Your task to perform on an android device: turn on priority inbox in the gmail app Image 0: 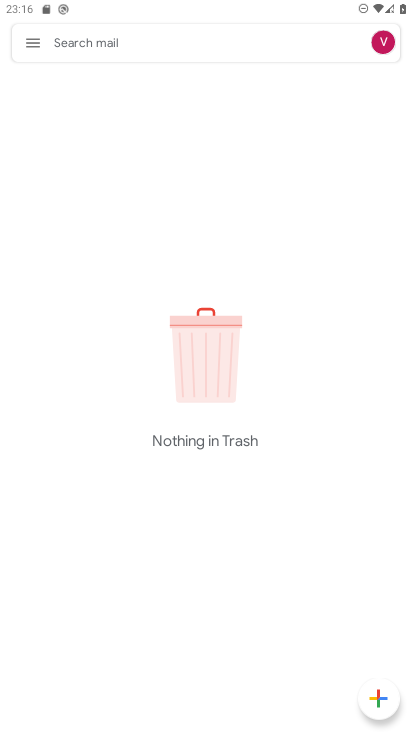
Step 0: press home button
Your task to perform on an android device: turn on priority inbox in the gmail app Image 1: 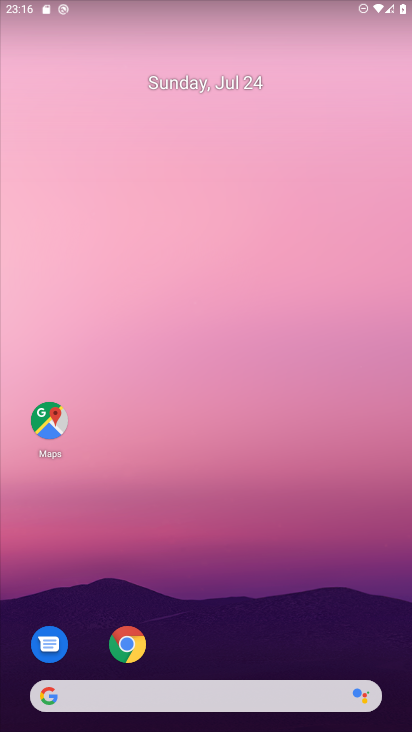
Step 1: drag from (336, 644) to (359, 141)
Your task to perform on an android device: turn on priority inbox in the gmail app Image 2: 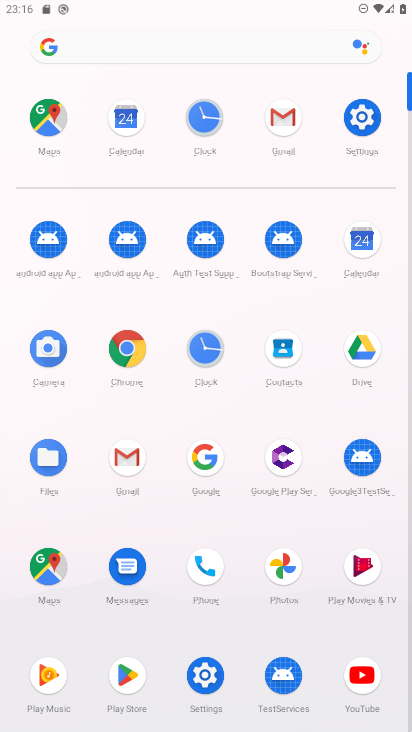
Step 2: click (128, 457)
Your task to perform on an android device: turn on priority inbox in the gmail app Image 3: 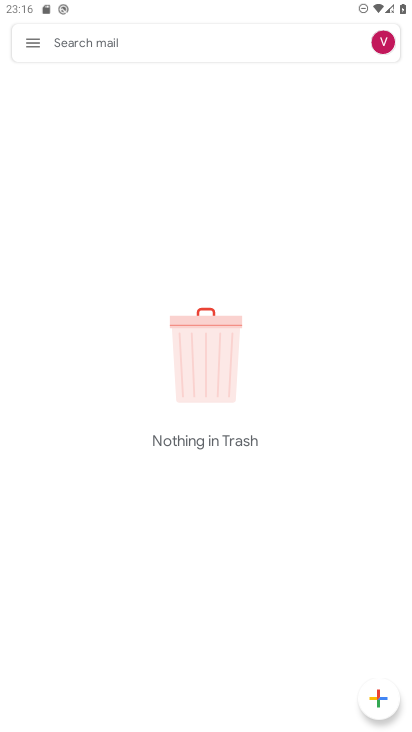
Step 3: click (27, 43)
Your task to perform on an android device: turn on priority inbox in the gmail app Image 4: 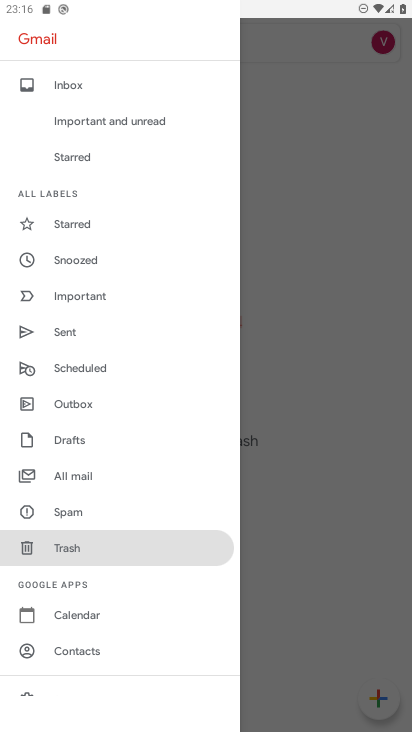
Step 4: drag from (128, 644) to (128, 214)
Your task to perform on an android device: turn on priority inbox in the gmail app Image 5: 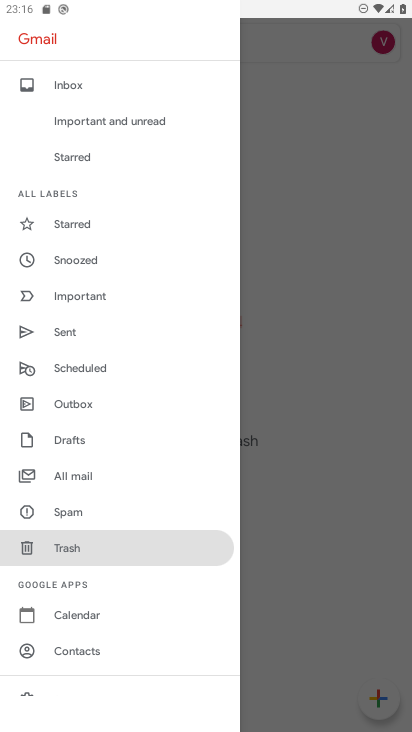
Step 5: drag from (113, 659) to (125, 192)
Your task to perform on an android device: turn on priority inbox in the gmail app Image 6: 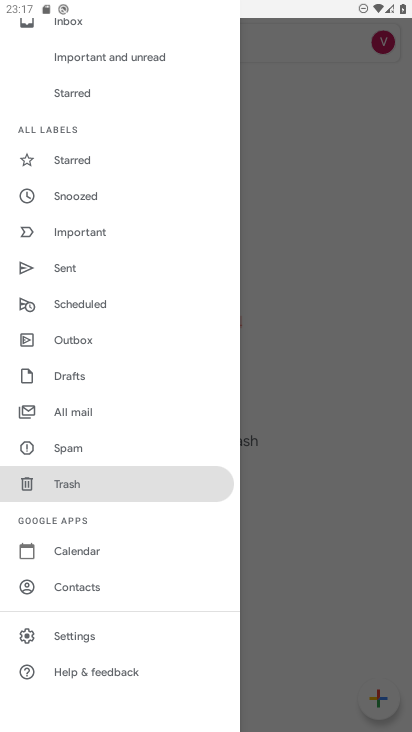
Step 6: click (79, 635)
Your task to perform on an android device: turn on priority inbox in the gmail app Image 7: 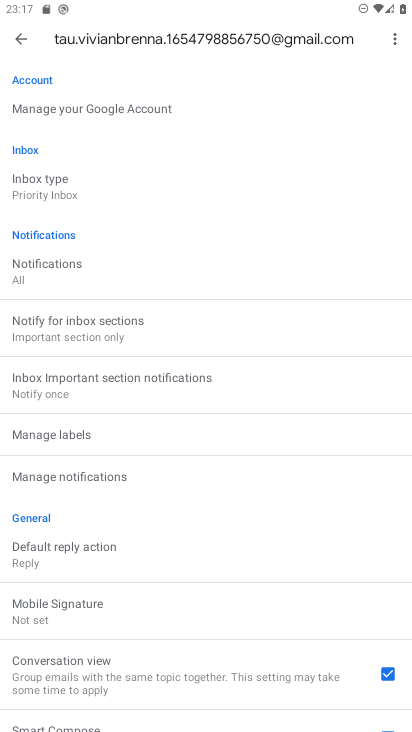
Step 7: click (34, 186)
Your task to perform on an android device: turn on priority inbox in the gmail app Image 8: 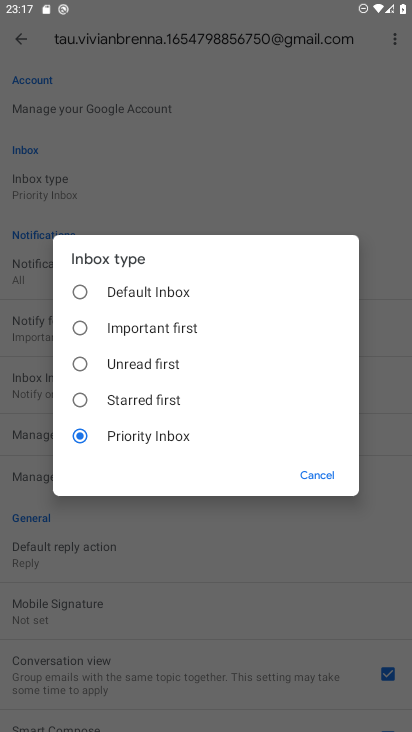
Step 8: task complete